Your task to perform on an android device: set default search engine in the chrome app Image 0: 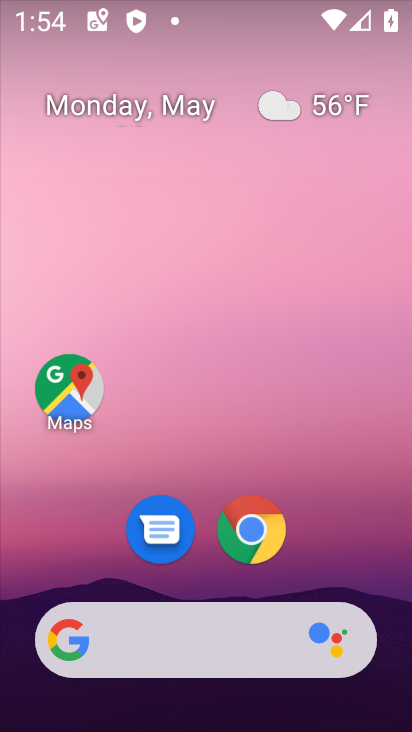
Step 0: click (252, 534)
Your task to perform on an android device: set default search engine in the chrome app Image 1: 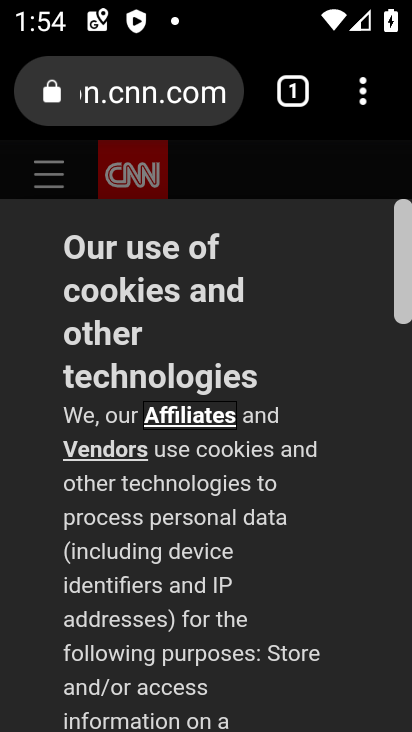
Step 1: click (358, 106)
Your task to perform on an android device: set default search engine in the chrome app Image 2: 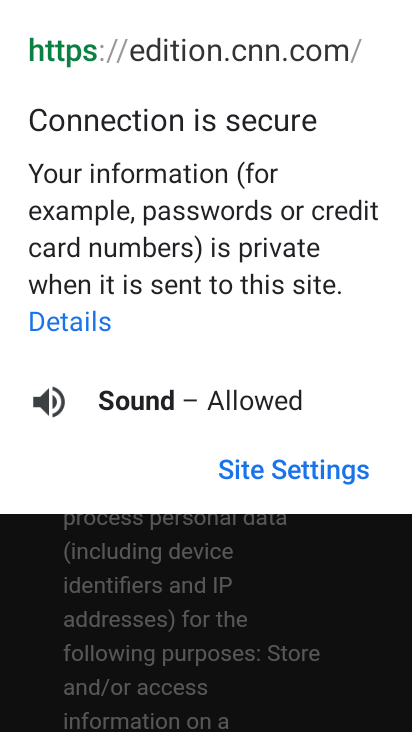
Step 2: click (169, 604)
Your task to perform on an android device: set default search engine in the chrome app Image 3: 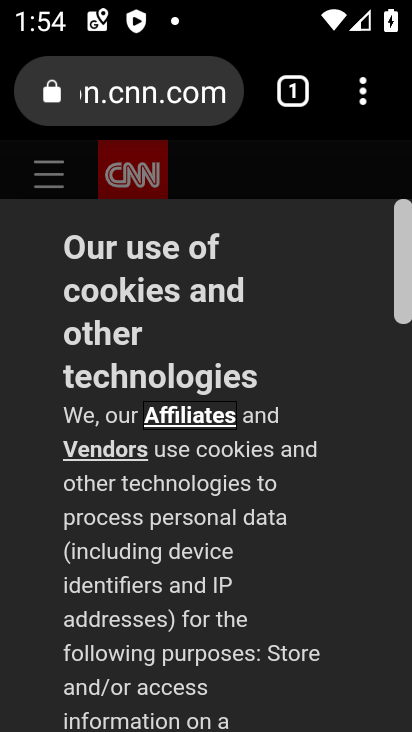
Step 3: click (353, 77)
Your task to perform on an android device: set default search engine in the chrome app Image 4: 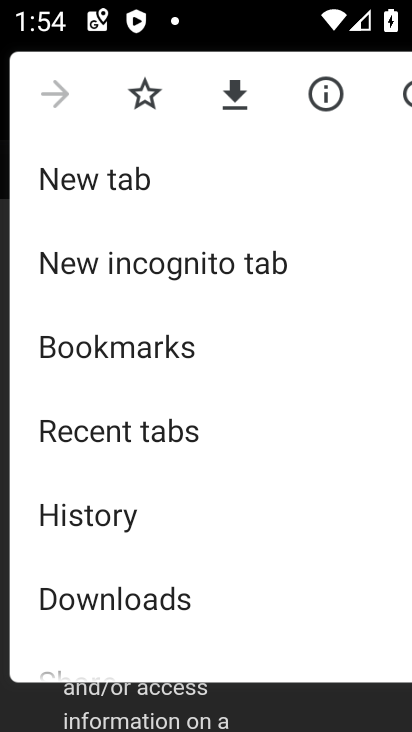
Step 4: drag from (170, 583) to (271, 147)
Your task to perform on an android device: set default search engine in the chrome app Image 5: 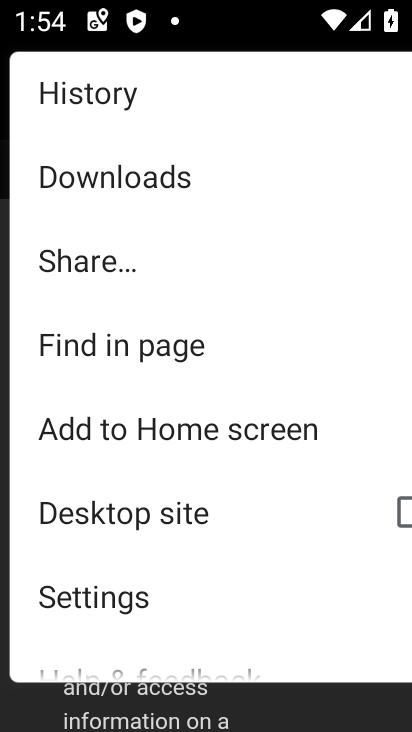
Step 5: click (152, 580)
Your task to perform on an android device: set default search engine in the chrome app Image 6: 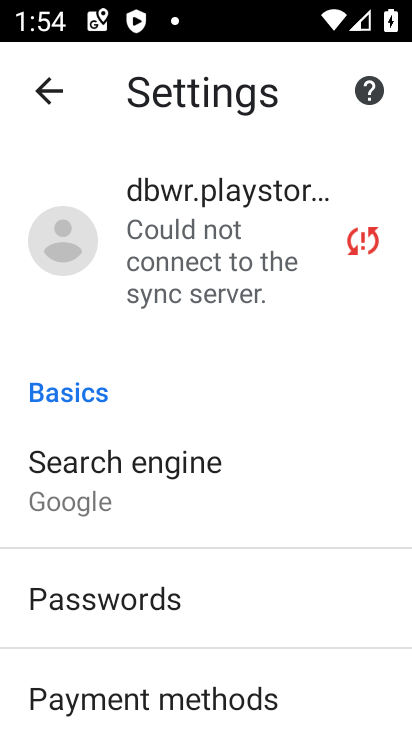
Step 6: click (125, 498)
Your task to perform on an android device: set default search engine in the chrome app Image 7: 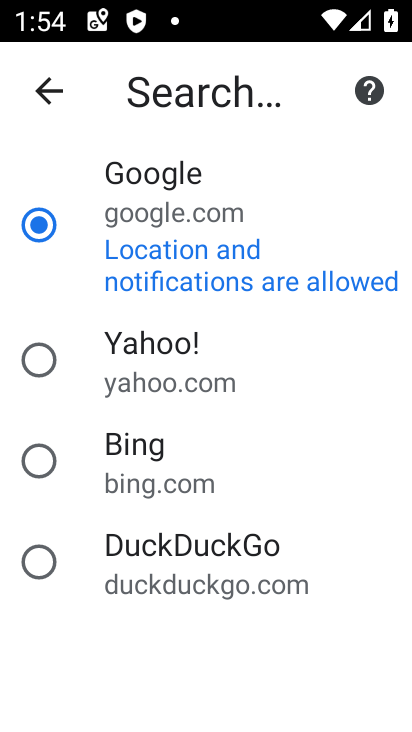
Step 7: click (143, 379)
Your task to perform on an android device: set default search engine in the chrome app Image 8: 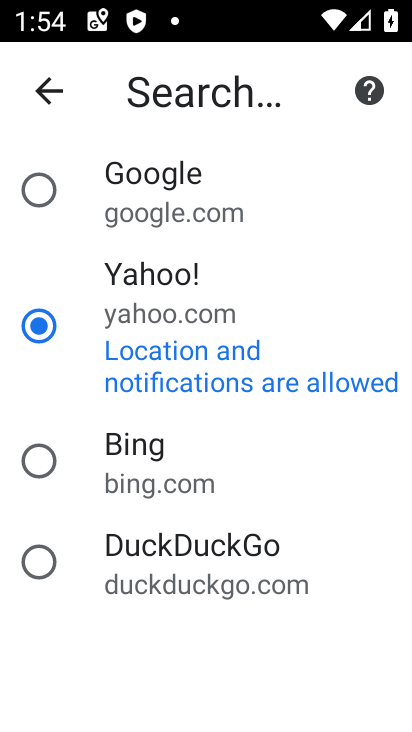
Step 8: task complete